Your task to perform on an android device: Add "amazon basics triple a" to the cart on newegg, then select checkout. Image 0: 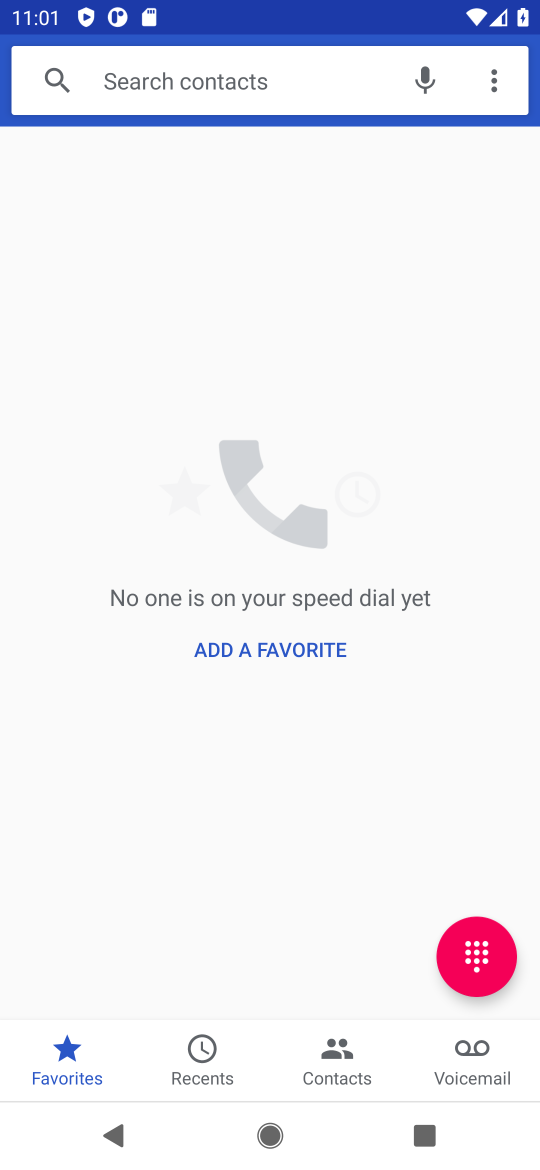
Step 0: press home button
Your task to perform on an android device: Add "amazon basics triple a" to the cart on newegg, then select checkout. Image 1: 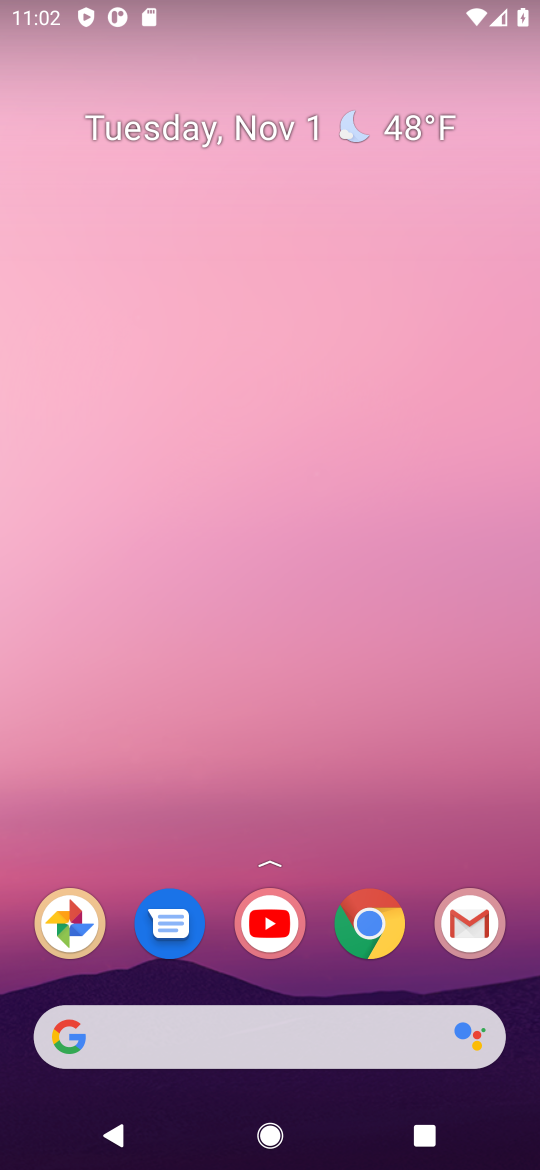
Step 1: click (368, 920)
Your task to perform on an android device: Add "amazon basics triple a" to the cart on newegg, then select checkout. Image 2: 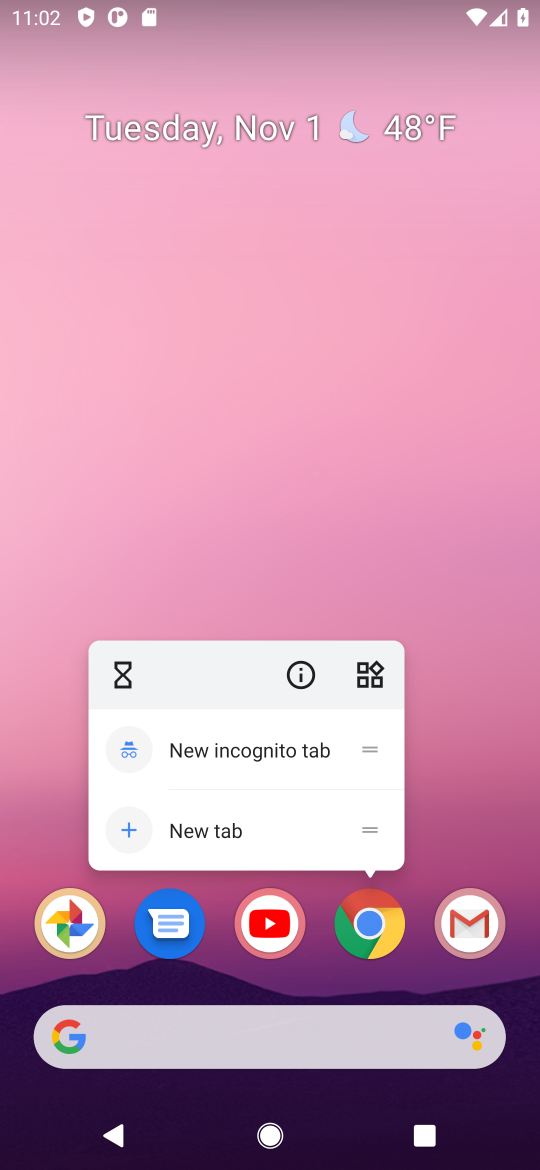
Step 2: click (368, 944)
Your task to perform on an android device: Add "amazon basics triple a" to the cart on newegg, then select checkout. Image 3: 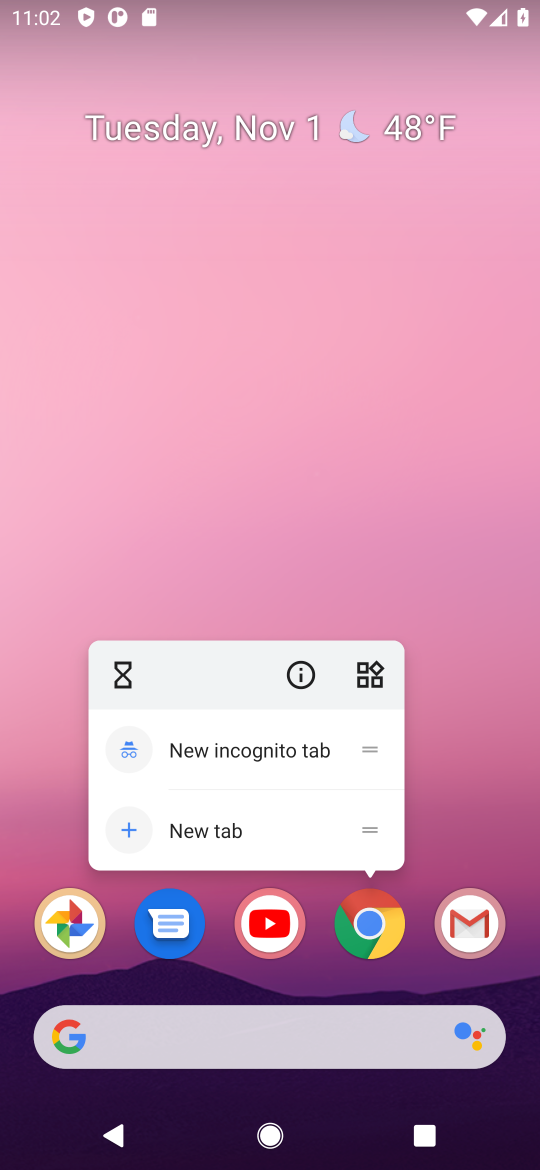
Step 3: click (380, 933)
Your task to perform on an android device: Add "amazon basics triple a" to the cart on newegg, then select checkout. Image 4: 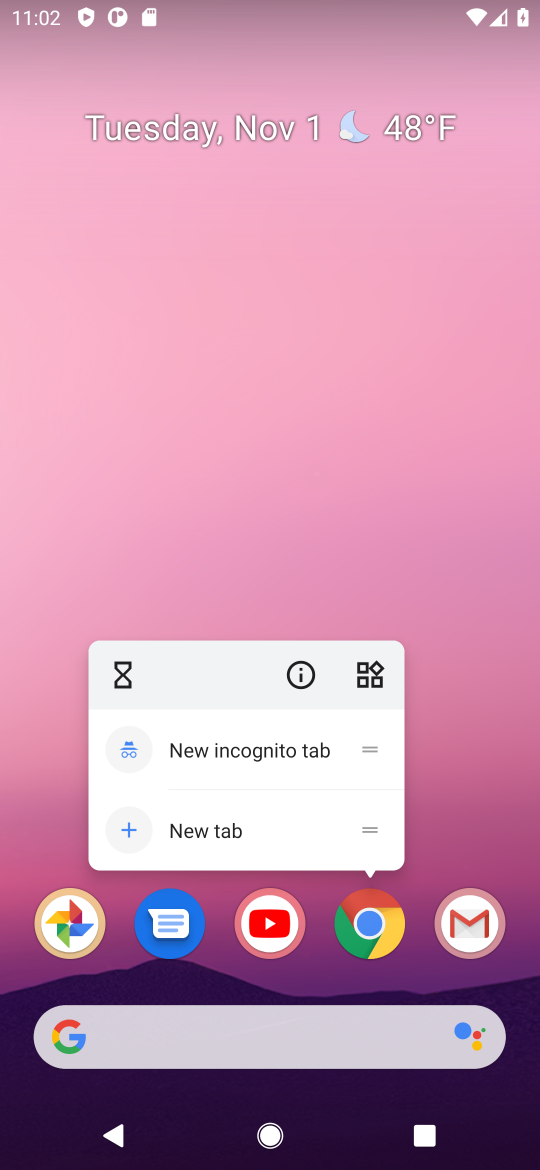
Step 4: click (374, 928)
Your task to perform on an android device: Add "amazon basics triple a" to the cart on newegg, then select checkout. Image 5: 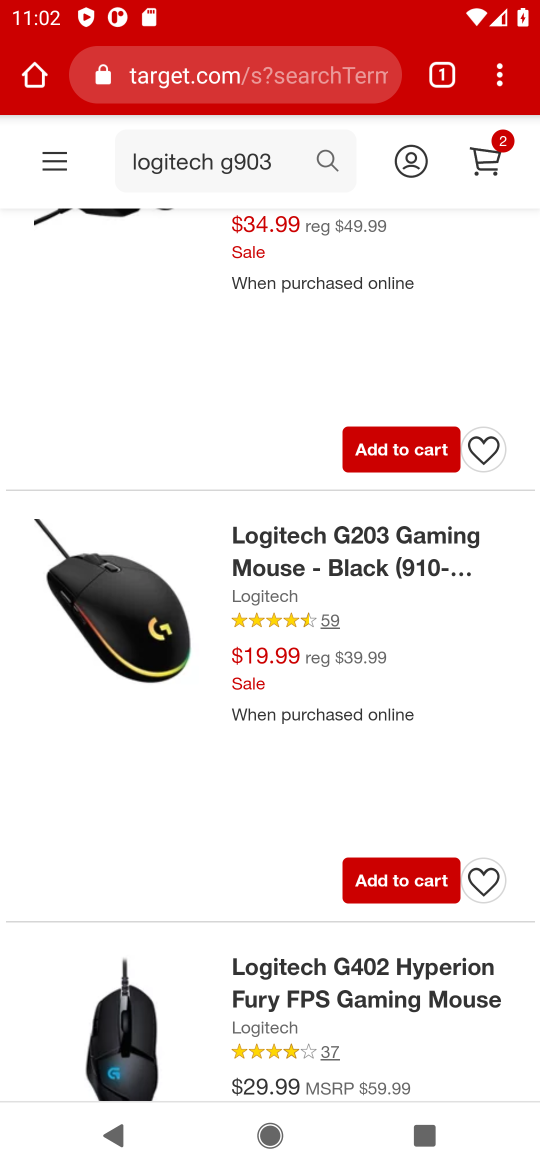
Step 5: click (335, 87)
Your task to perform on an android device: Add "amazon basics triple a" to the cart on newegg, then select checkout. Image 6: 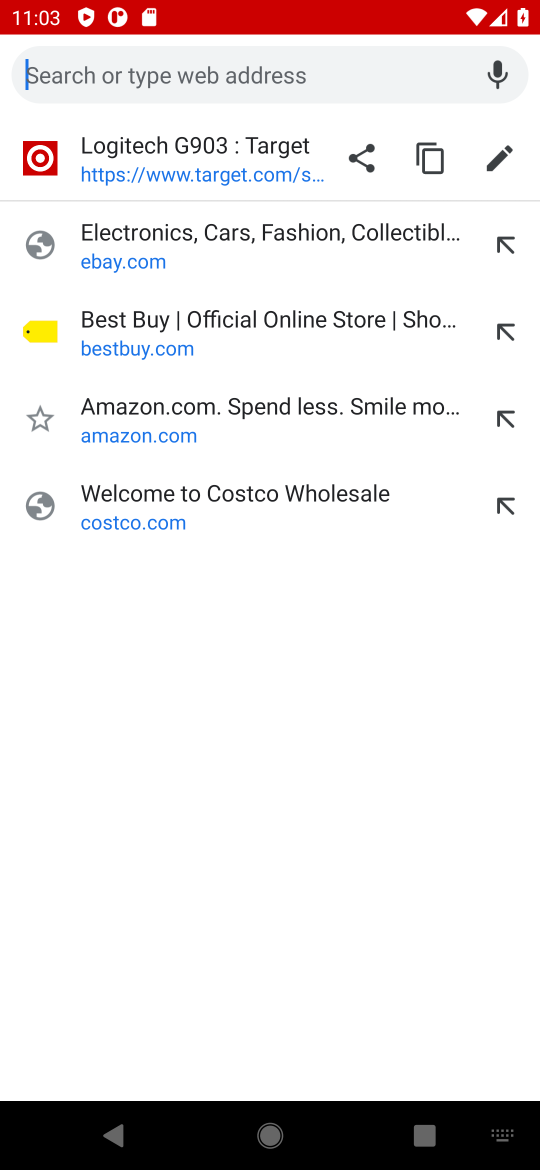
Step 6: type "newegg"
Your task to perform on an android device: Add "amazon basics triple a" to the cart on newegg, then select checkout. Image 7: 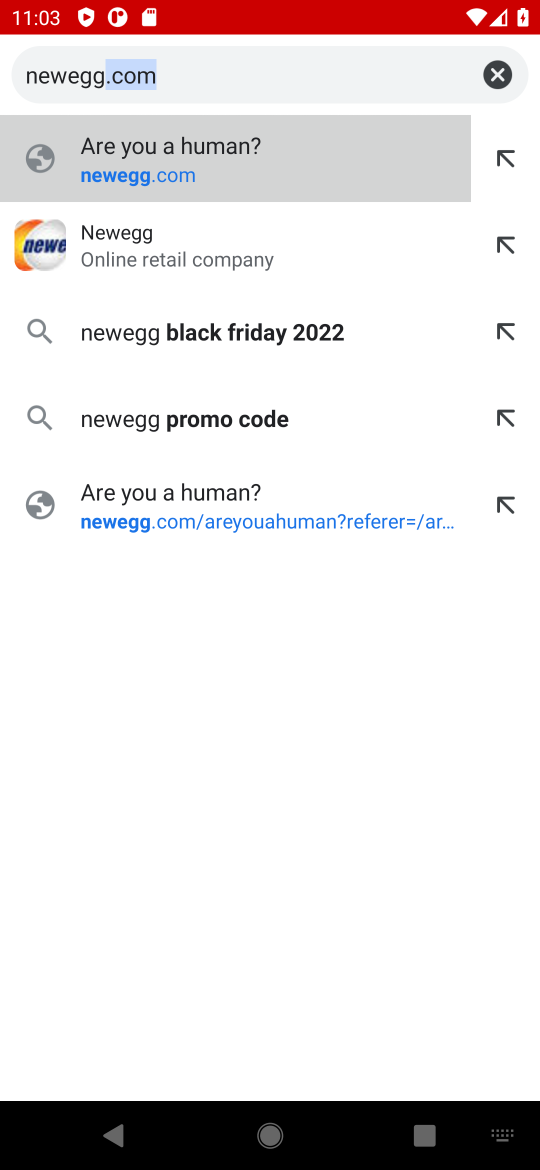
Step 7: click (203, 229)
Your task to perform on an android device: Add "amazon basics triple a" to the cart on newegg, then select checkout. Image 8: 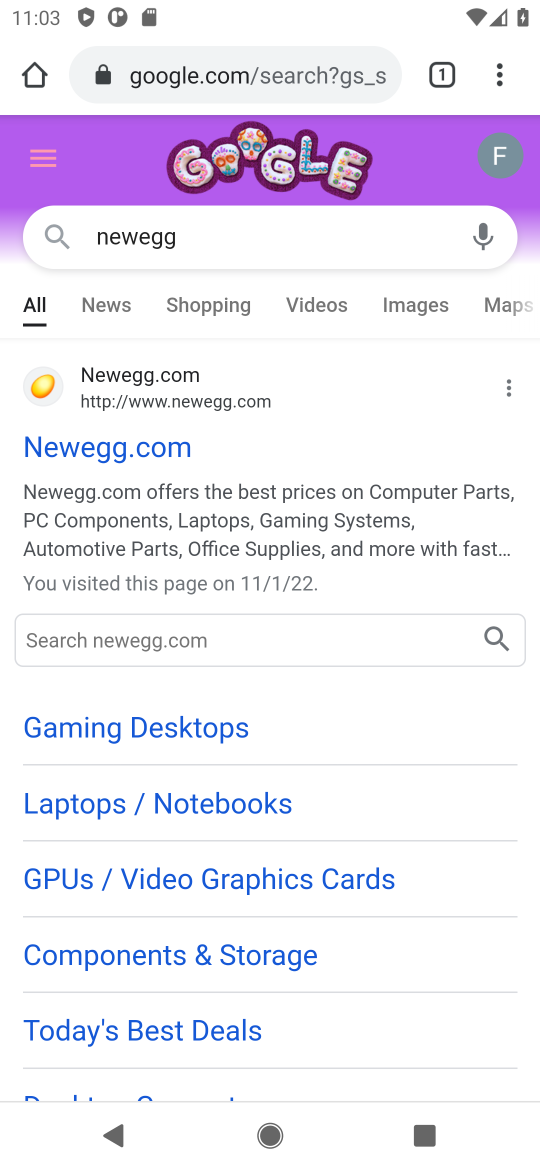
Step 8: click (173, 439)
Your task to perform on an android device: Add "amazon basics triple a" to the cart on newegg, then select checkout. Image 9: 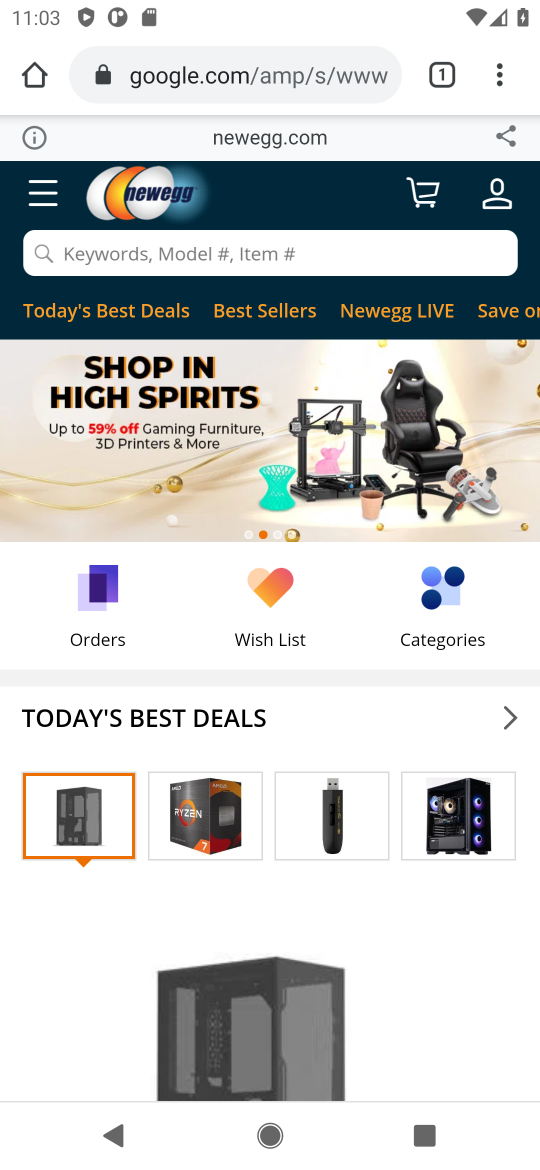
Step 9: click (318, 253)
Your task to perform on an android device: Add "amazon basics triple a" to the cart on newegg, then select checkout. Image 10: 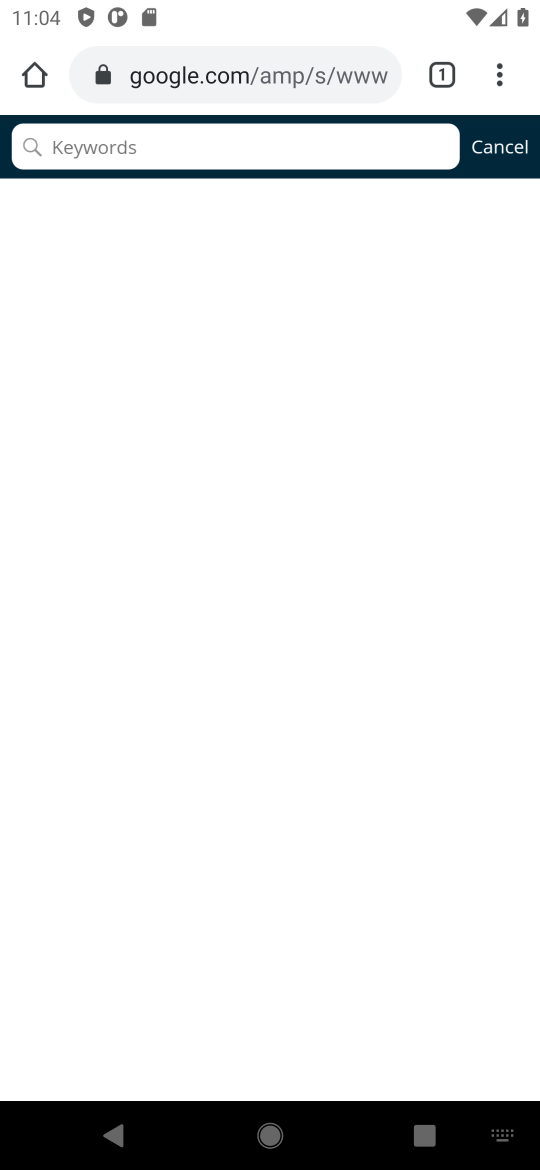
Step 10: type "amazon basic triple a"
Your task to perform on an android device: Add "amazon basics triple a" to the cart on newegg, then select checkout. Image 11: 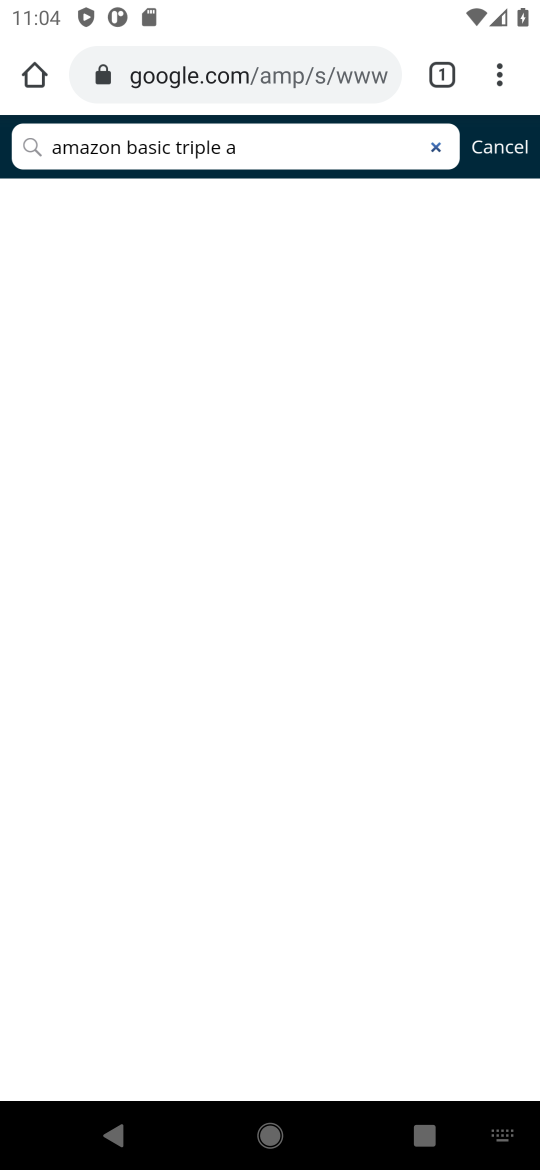
Step 11: press enter
Your task to perform on an android device: Add "amazon basics triple a" to the cart on newegg, then select checkout. Image 12: 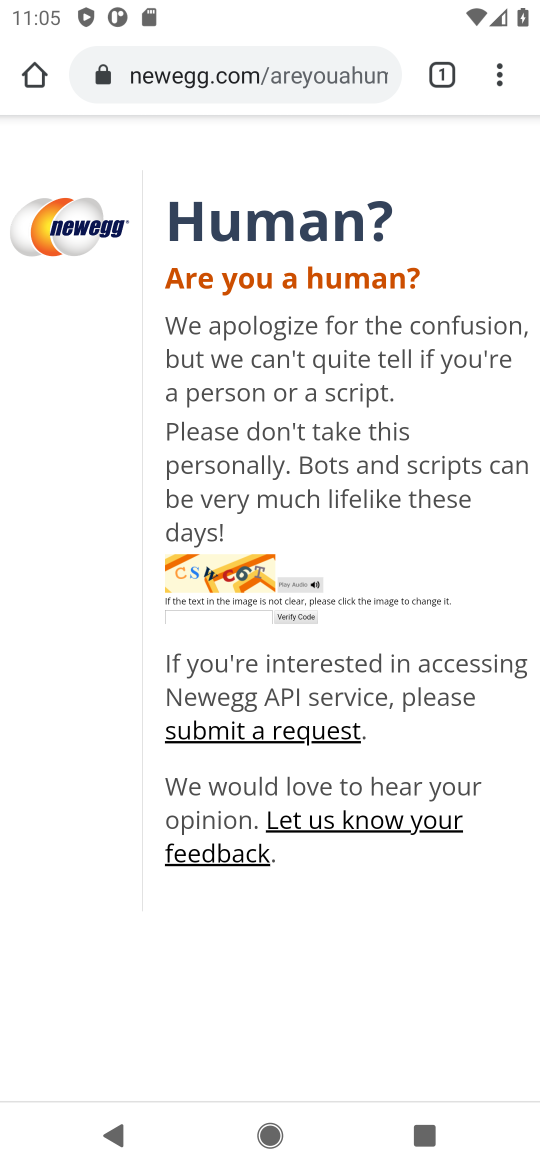
Step 12: task complete